Your task to perform on an android device: turn on location history Image 0: 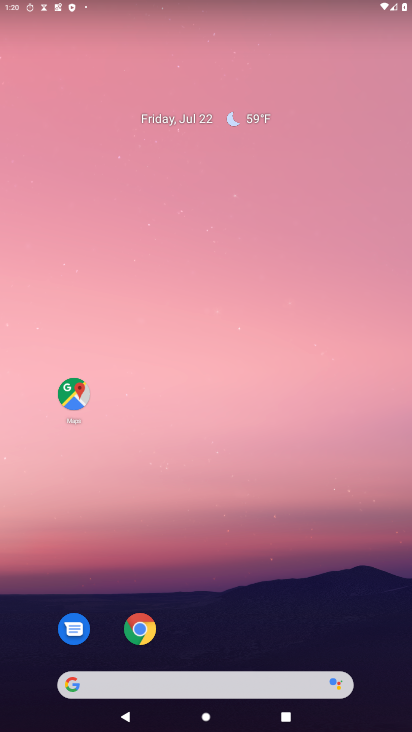
Step 0: drag from (242, 673) to (370, 166)
Your task to perform on an android device: turn on location history Image 1: 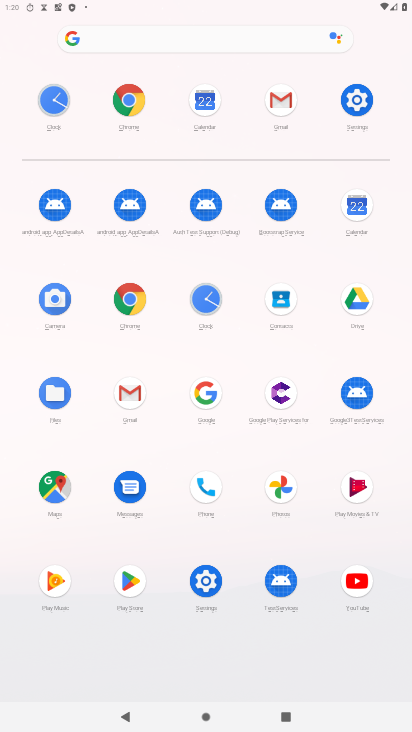
Step 1: click (368, 101)
Your task to perform on an android device: turn on location history Image 2: 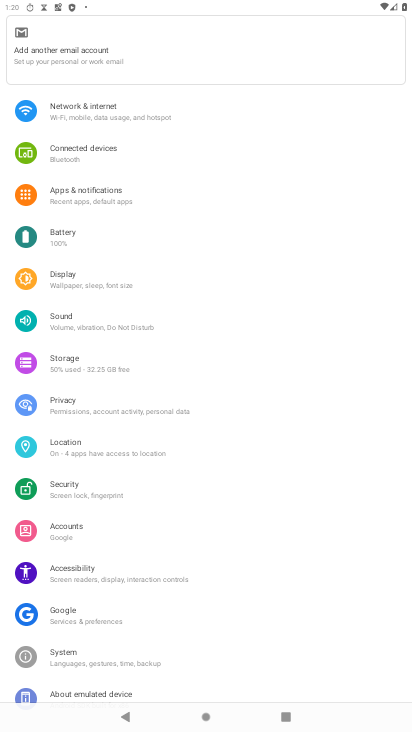
Step 2: click (82, 443)
Your task to perform on an android device: turn on location history Image 3: 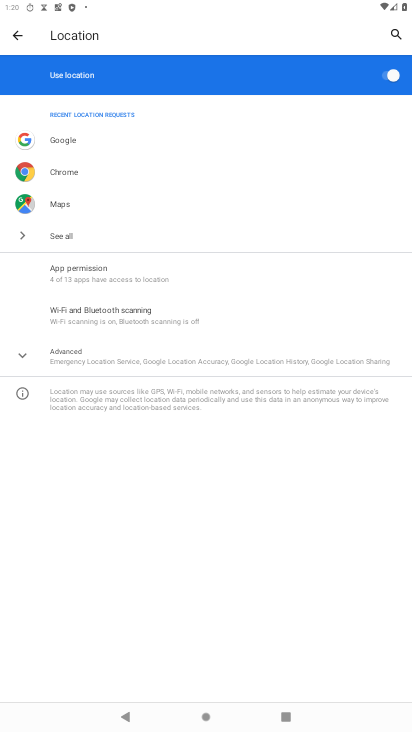
Step 3: click (122, 364)
Your task to perform on an android device: turn on location history Image 4: 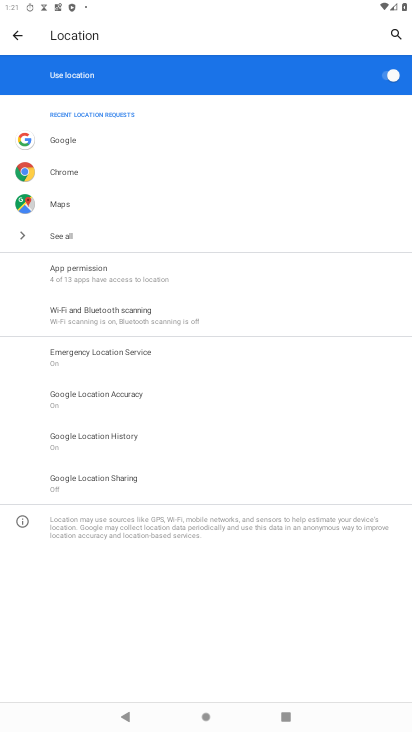
Step 4: click (110, 451)
Your task to perform on an android device: turn on location history Image 5: 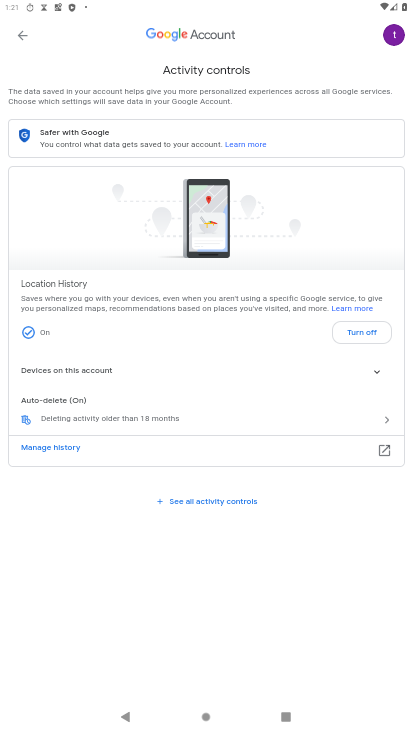
Step 5: task complete